Your task to perform on an android device: open a new tab in the chrome app Image 0: 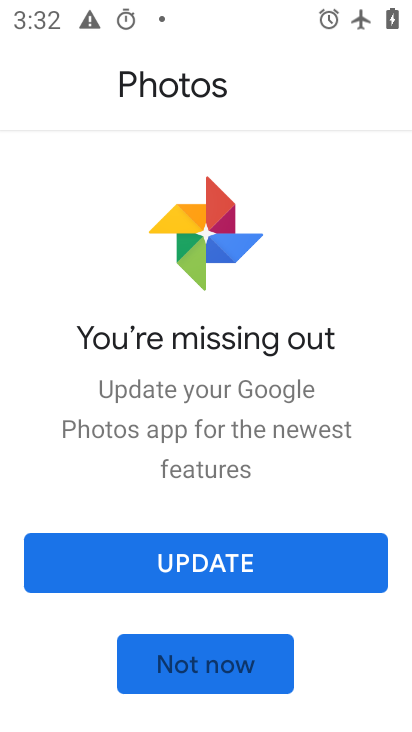
Step 0: press home button
Your task to perform on an android device: open a new tab in the chrome app Image 1: 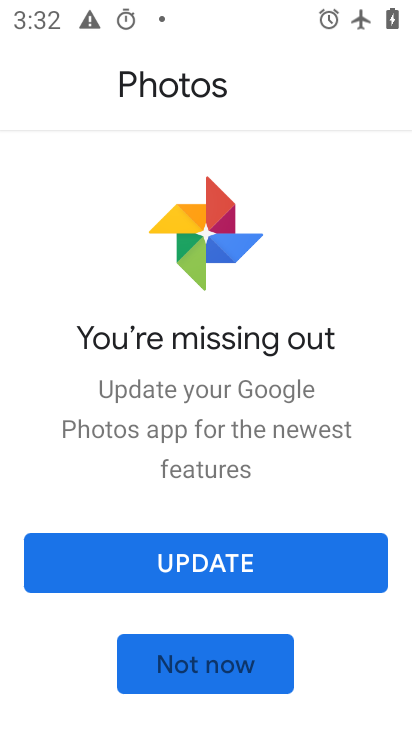
Step 1: press home button
Your task to perform on an android device: open a new tab in the chrome app Image 2: 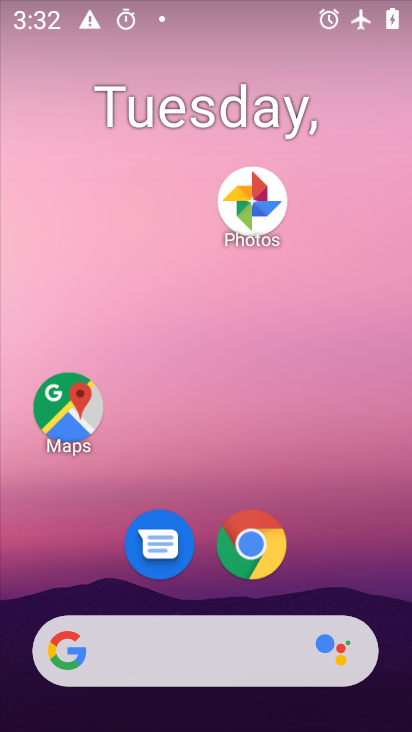
Step 2: drag from (341, 577) to (280, 114)
Your task to perform on an android device: open a new tab in the chrome app Image 3: 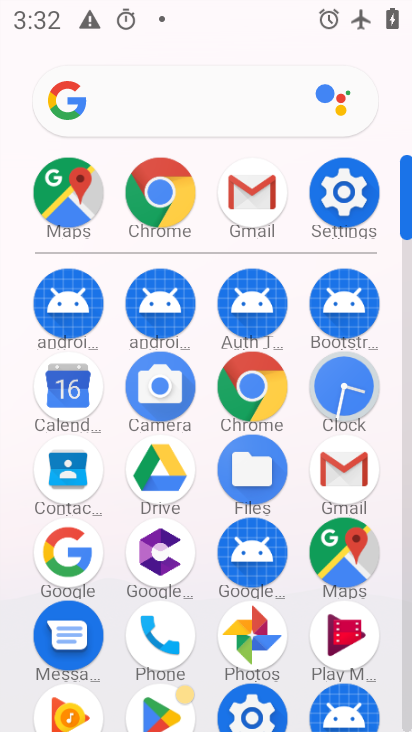
Step 3: click (247, 386)
Your task to perform on an android device: open a new tab in the chrome app Image 4: 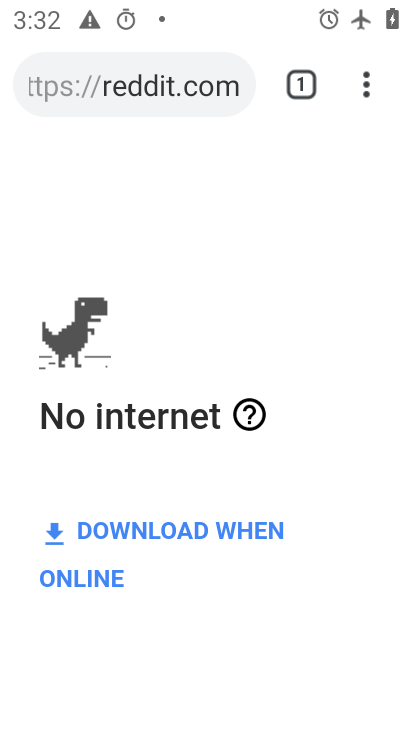
Step 4: press home button
Your task to perform on an android device: open a new tab in the chrome app Image 5: 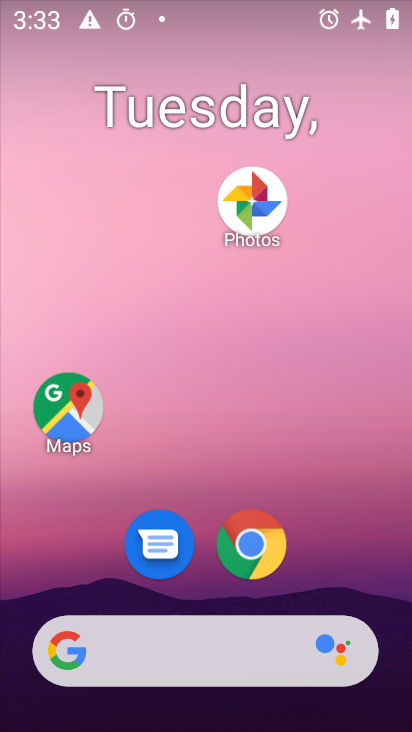
Step 5: drag from (342, 558) to (342, 39)
Your task to perform on an android device: open a new tab in the chrome app Image 6: 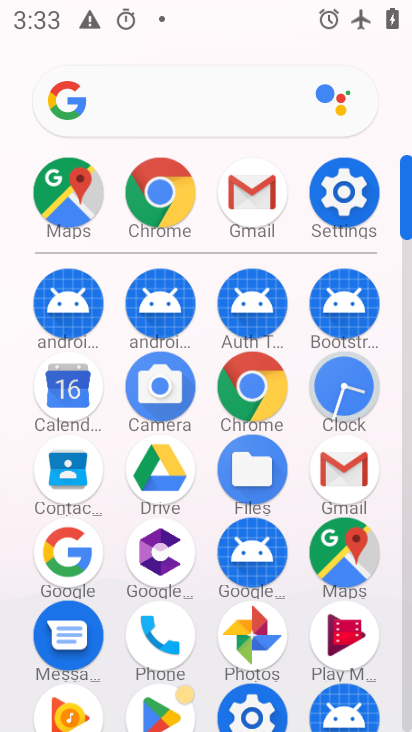
Step 6: click (256, 388)
Your task to perform on an android device: open a new tab in the chrome app Image 7: 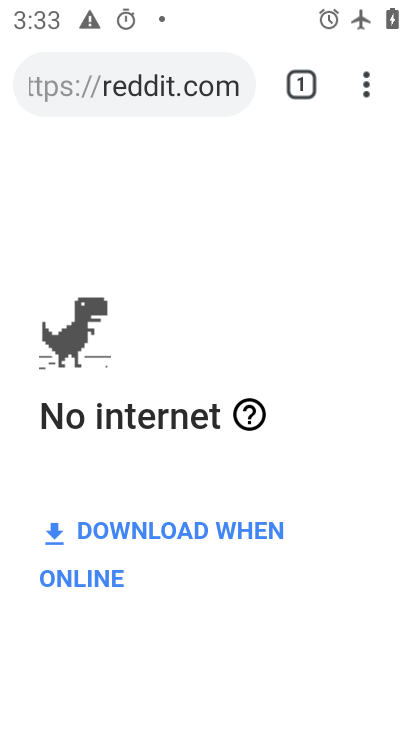
Step 7: task complete